Your task to perform on an android device: change text size in settings app Image 0: 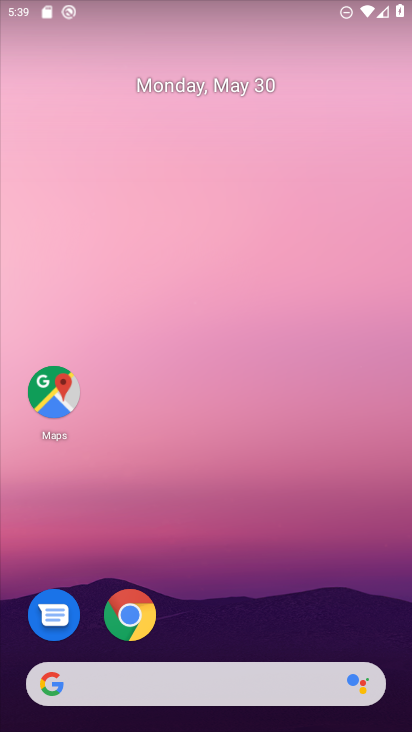
Step 0: drag from (183, 603) to (216, 199)
Your task to perform on an android device: change text size in settings app Image 1: 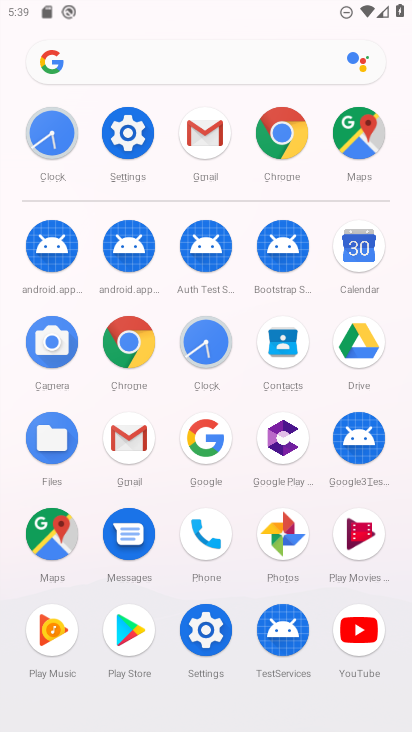
Step 1: click (124, 106)
Your task to perform on an android device: change text size in settings app Image 2: 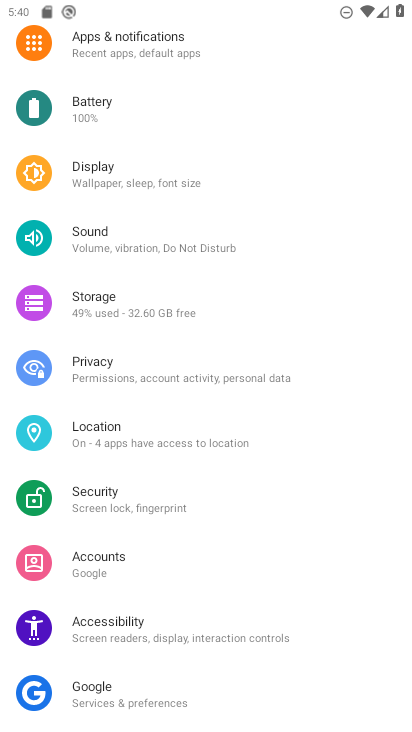
Step 2: click (126, 164)
Your task to perform on an android device: change text size in settings app Image 3: 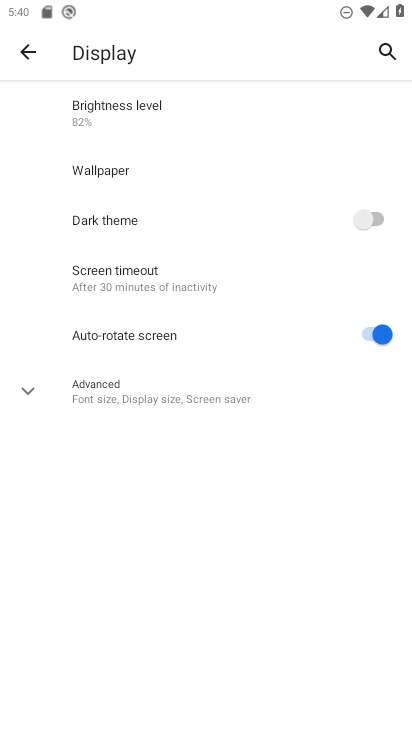
Step 3: click (71, 399)
Your task to perform on an android device: change text size in settings app Image 4: 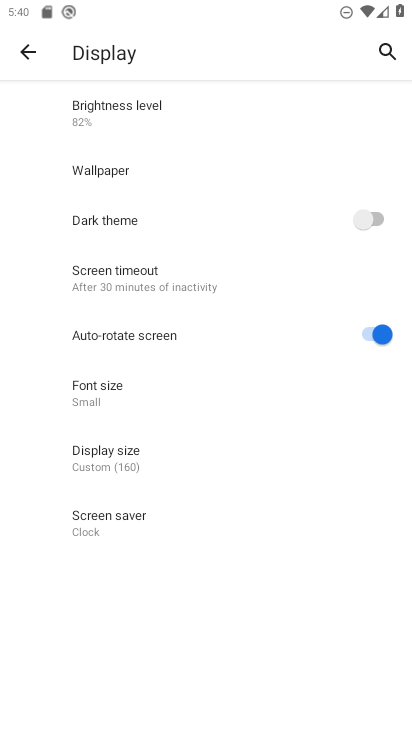
Step 4: click (71, 399)
Your task to perform on an android device: change text size in settings app Image 5: 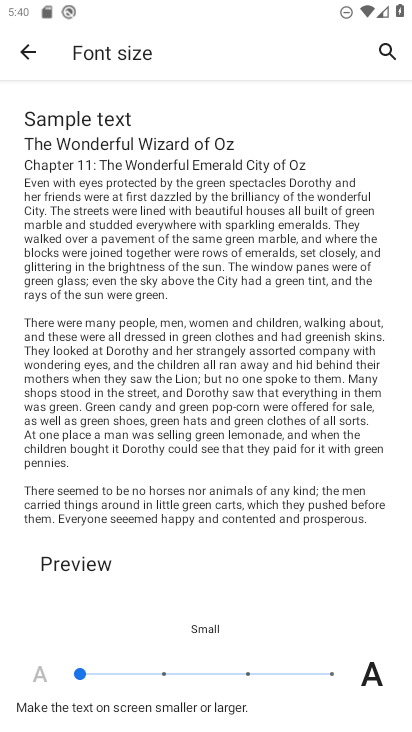
Step 5: click (156, 676)
Your task to perform on an android device: change text size in settings app Image 6: 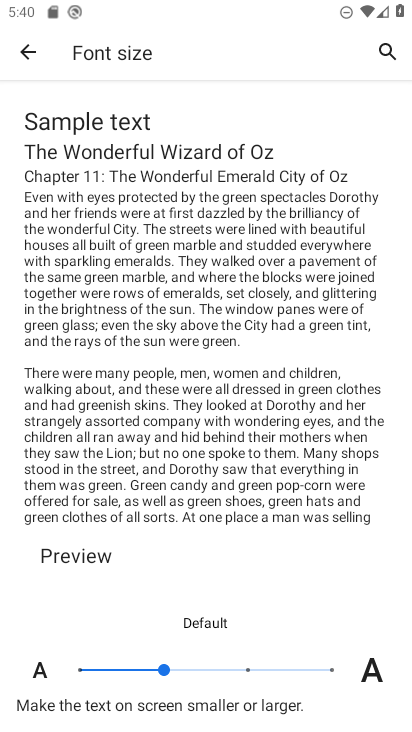
Step 6: task complete